Your task to perform on an android device: change text size in settings app Image 0: 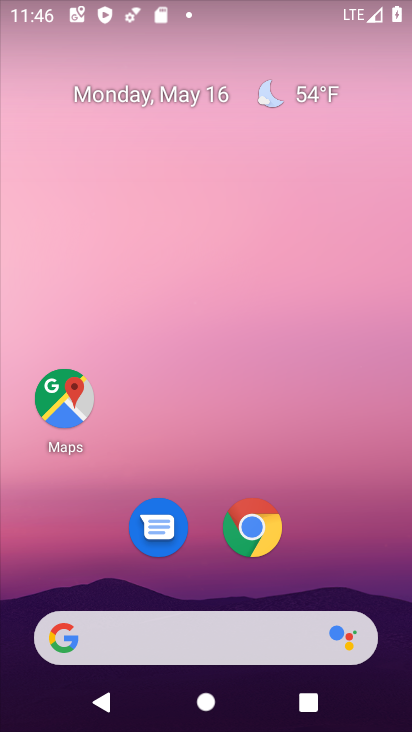
Step 0: drag from (300, 650) to (233, 249)
Your task to perform on an android device: change text size in settings app Image 1: 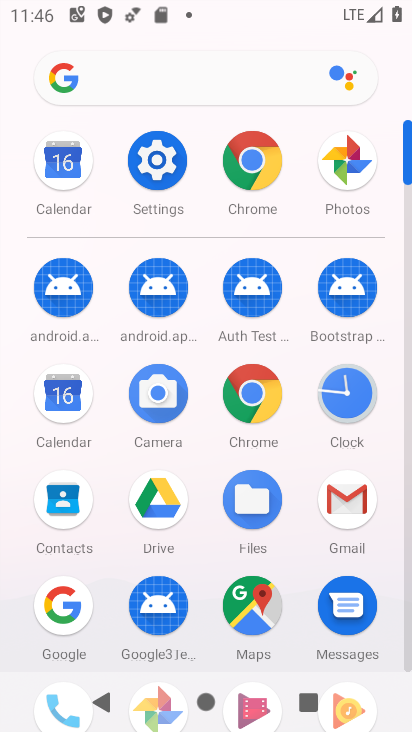
Step 1: click (184, 166)
Your task to perform on an android device: change text size in settings app Image 2: 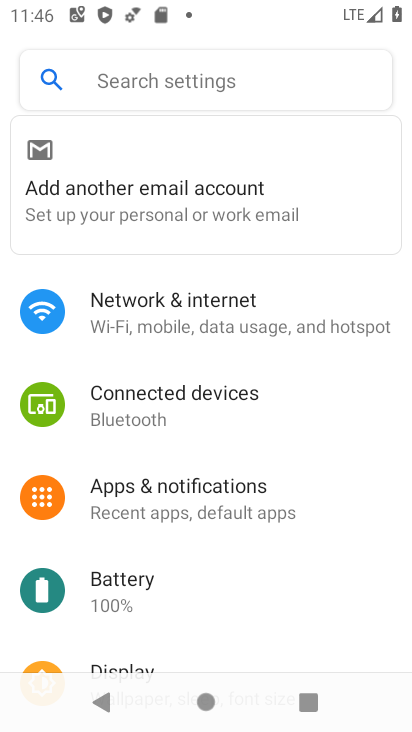
Step 2: click (195, 91)
Your task to perform on an android device: change text size in settings app Image 3: 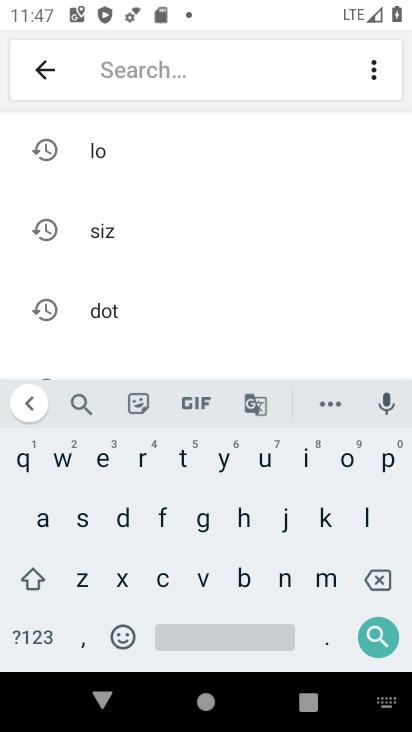
Step 3: click (82, 524)
Your task to perform on an android device: change text size in settings app Image 4: 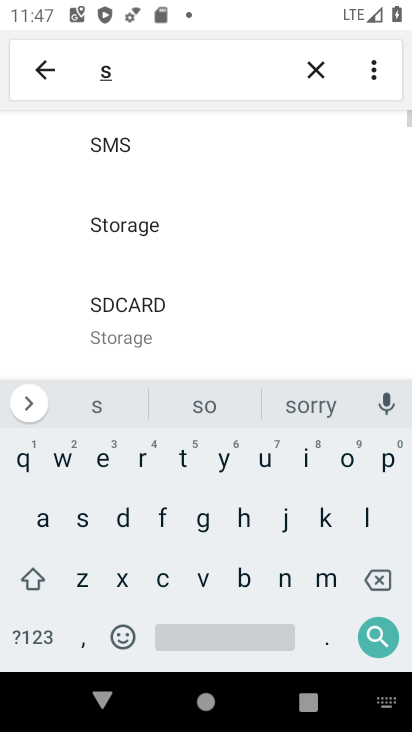
Step 4: click (309, 456)
Your task to perform on an android device: change text size in settings app Image 5: 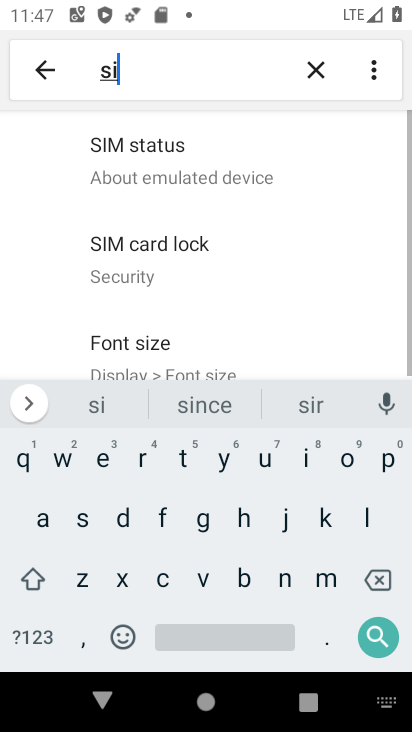
Step 5: click (81, 576)
Your task to perform on an android device: change text size in settings app Image 6: 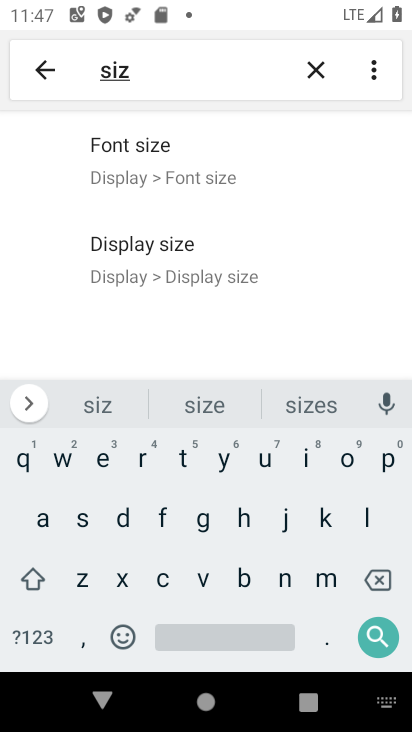
Step 6: click (165, 176)
Your task to perform on an android device: change text size in settings app Image 7: 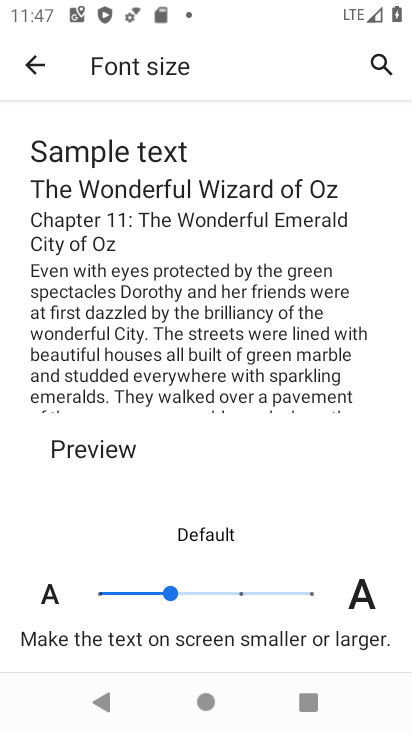
Step 7: click (229, 579)
Your task to perform on an android device: change text size in settings app Image 8: 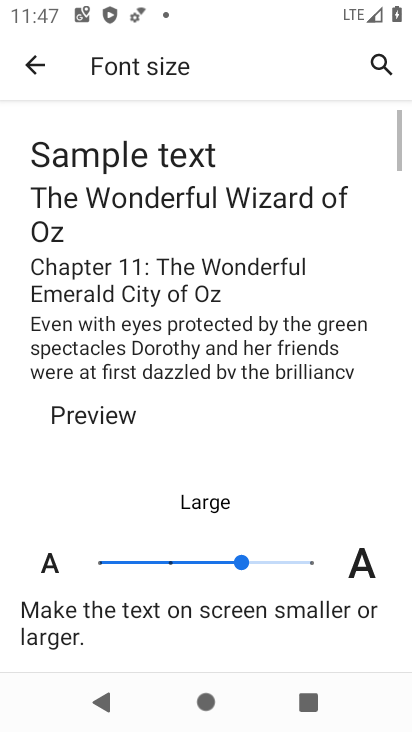
Step 8: task complete